Your task to perform on an android device: empty trash in google photos Image 0: 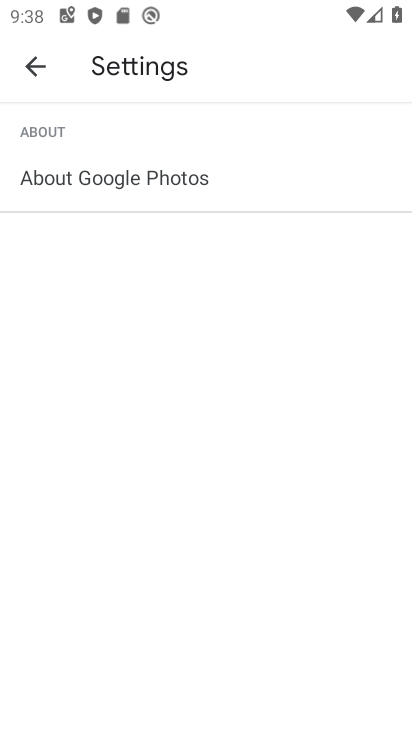
Step 0: press home button
Your task to perform on an android device: empty trash in google photos Image 1: 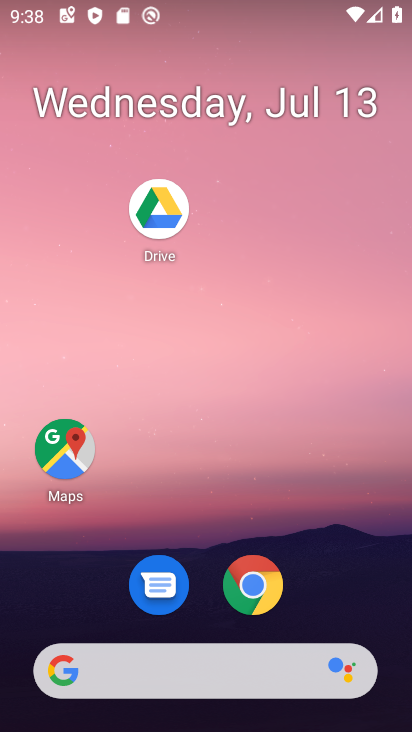
Step 1: drag from (183, 676) to (323, 147)
Your task to perform on an android device: empty trash in google photos Image 2: 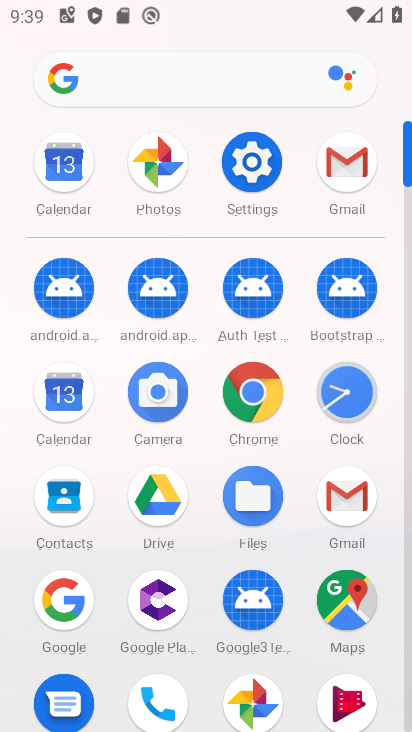
Step 2: click (178, 187)
Your task to perform on an android device: empty trash in google photos Image 3: 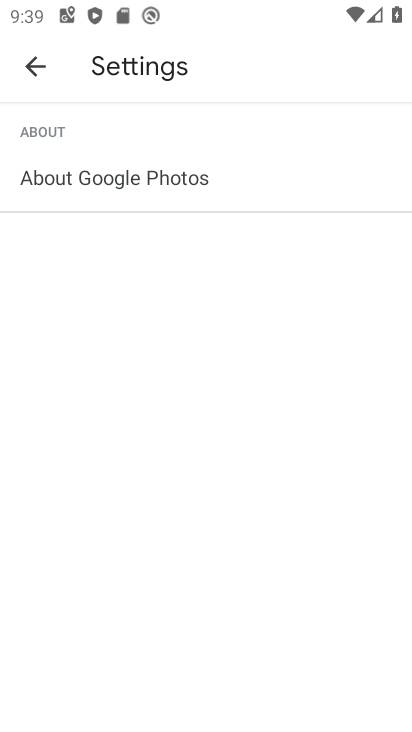
Step 3: click (38, 58)
Your task to perform on an android device: empty trash in google photos Image 4: 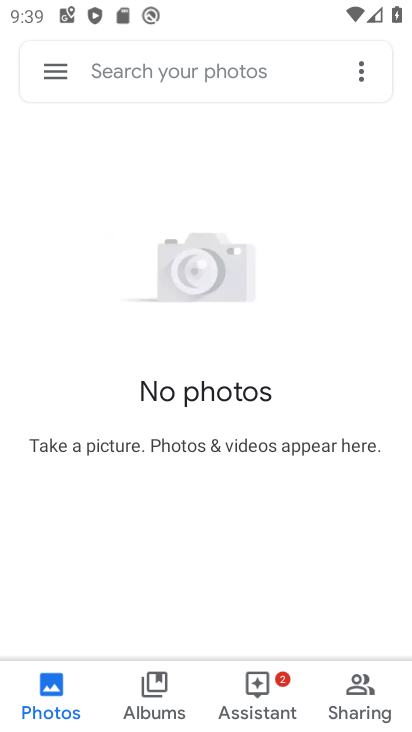
Step 4: click (49, 66)
Your task to perform on an android device: empty trash in google photos Image 5: 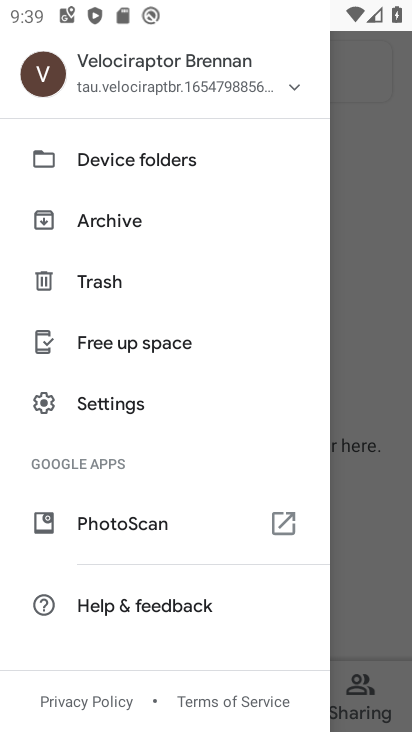
Step 5: click (108, 276)
Your task to perform on an android device: empty trash in google photos Image 6: 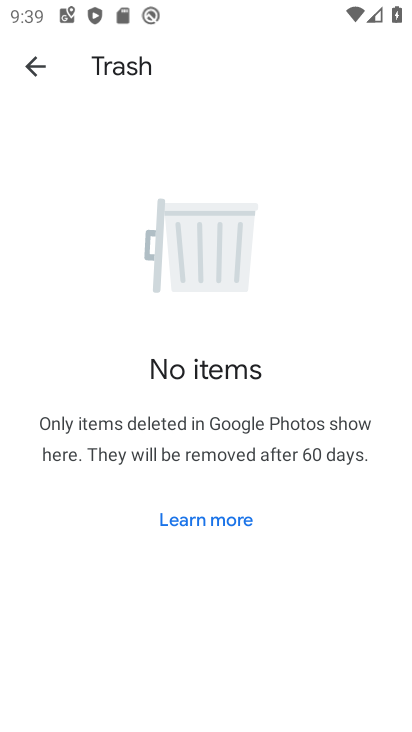
Step 6: task complete